Your task to perform on an android device: find which apps use the phone's location Image 0: 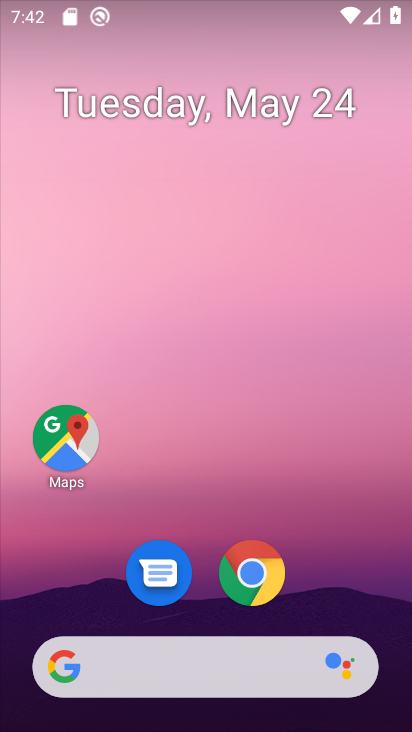
Step 0: drag from (383, 579) to (317, 17)
Your task to perform on an android device: find which apps use the phone's location Image 1: 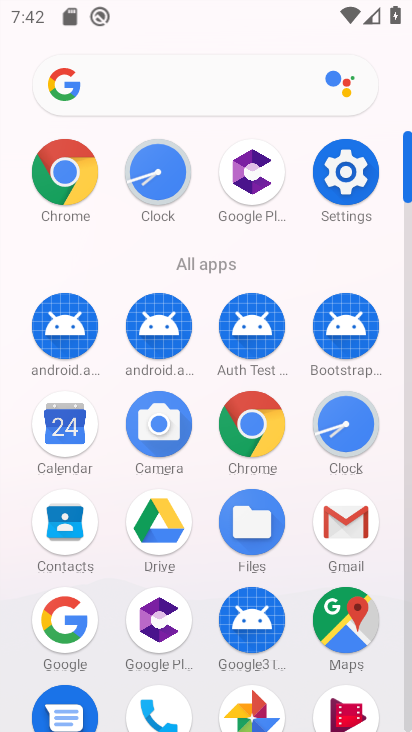
Step 1: click (342, 193)
Your task to perform on an android device: find which apps use the phone's location Image 2: 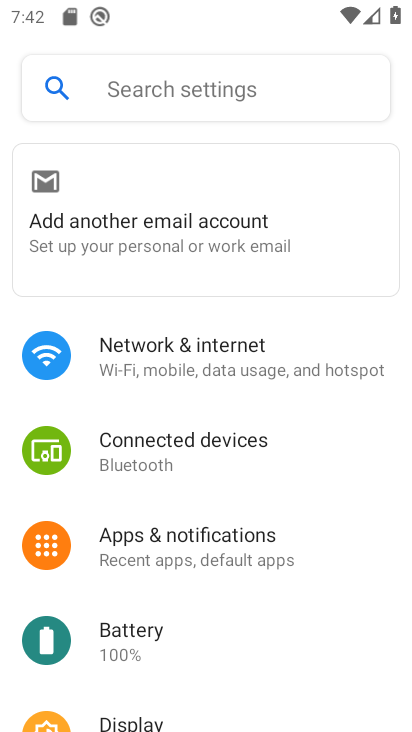
Step 2: drag from (195, 619) to (192, 227)
Your task to perform on an android device: find which apps use the phone's location Image 3: 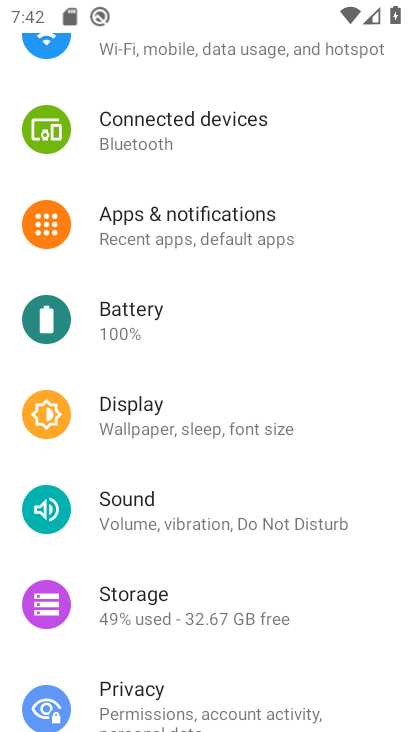
Step 3: drag from (198, 579) to (226, 257)
Your task to perform on an android device: find which apps use the phone's location Image 4: 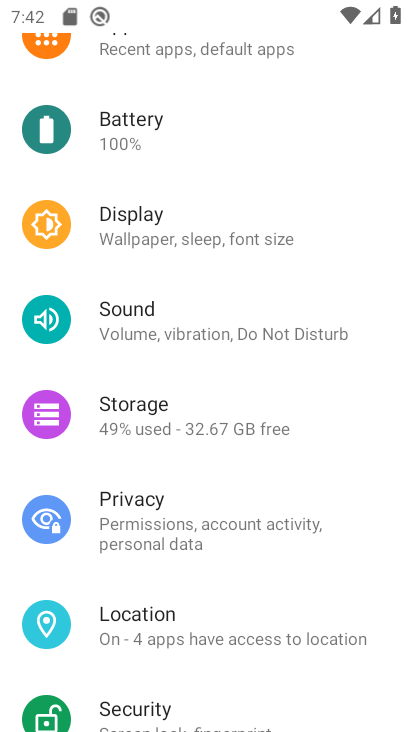
Step 4: click (220, 620)
Your task to perform on an android device: find which apps use the phone's location Image 5: 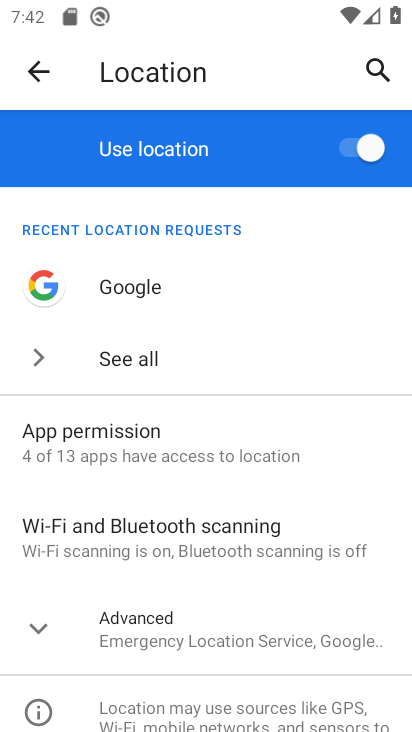
Step 5: click (143, 460)
Your task to perform on an android device: find which apps use the phone's location Image 6: 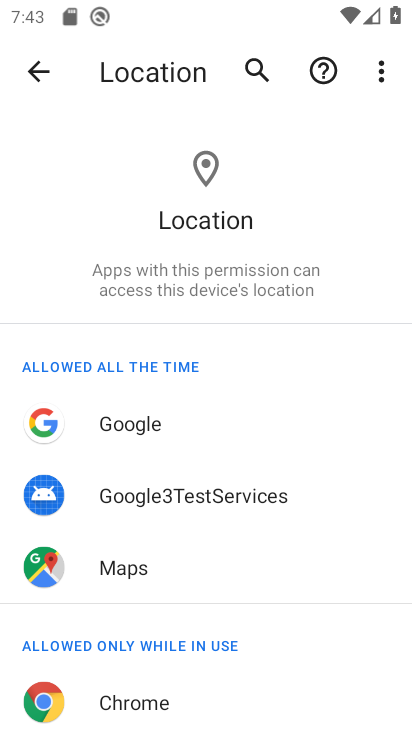
Step 6: task complete